Your task to perform on an android device: open the mobile data screen to see how much data has been used Image 0: 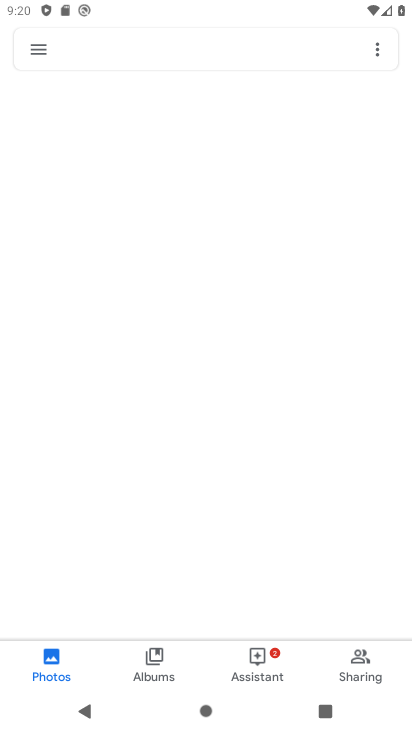
Step 0: click (58, 379)
Your task to perform on an android device: open the mobile data screen to see how much data has been used Image 1: 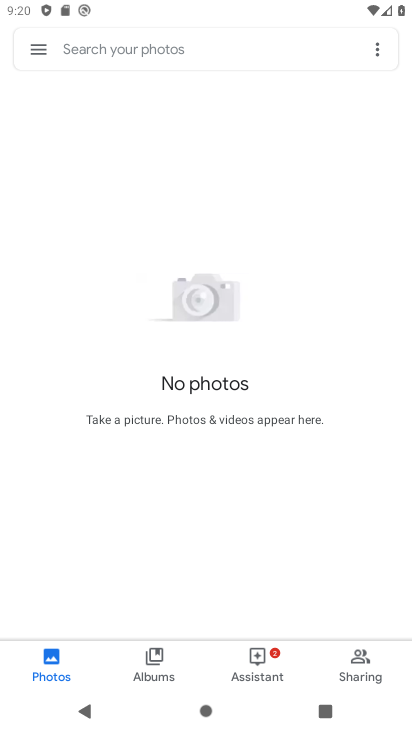
Step 1: press home button
Your task to perform on an android device: open the mobile data screen to see how much data has been used Image 2: 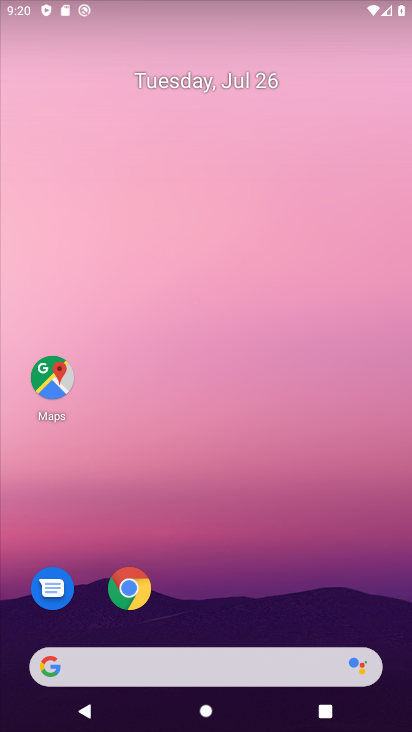
Step 2: drag from (160, 609) to (176, 244)
Your task to perform on an android device: open the mobile data screen to see how much data has been used Image 3: 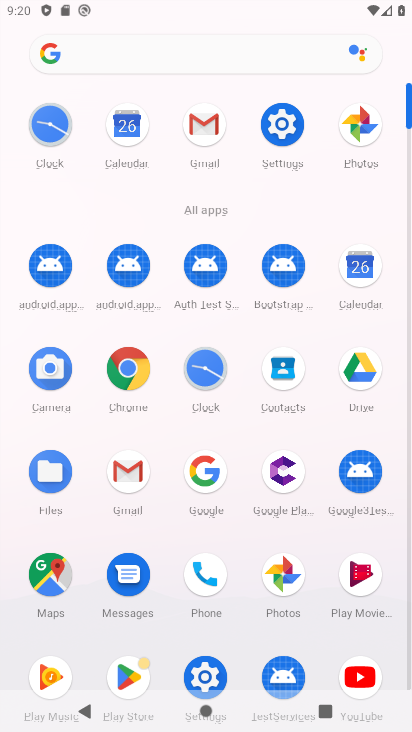
Step 3: click (287, 121)
Your task to perform on an android device: open the mobile data screen to see how much data has been used Image 4: 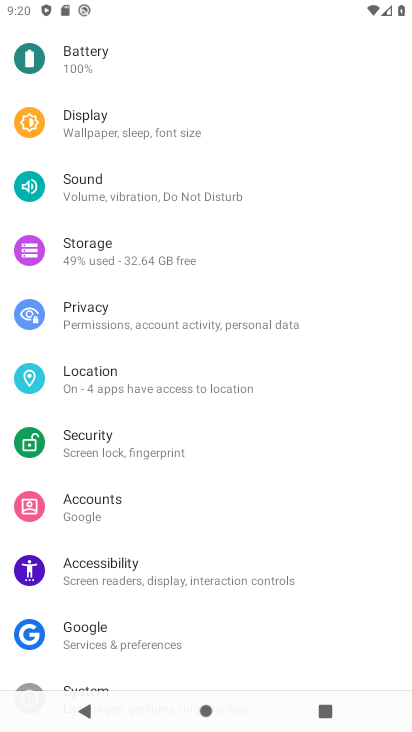
Step 4: drag from (88, 76) to (151, 459)
Your task to perform on an android device: open the mobile data screen to see how much data has been used Image 5: 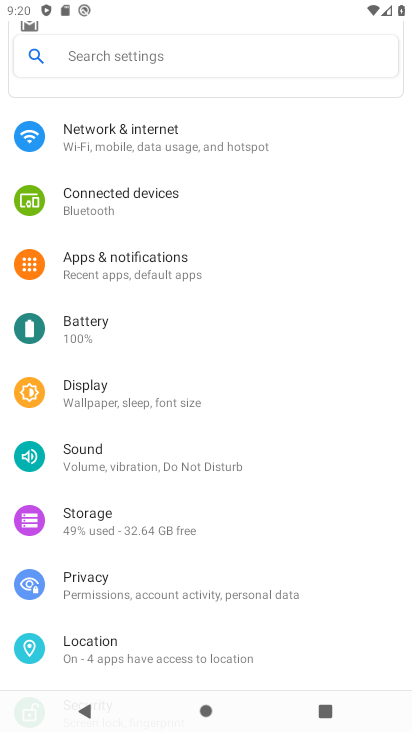
Step 5: click (113, 137)
Your task to perform on an android device: open the mobile data screen to see how much data has been used Image 6: 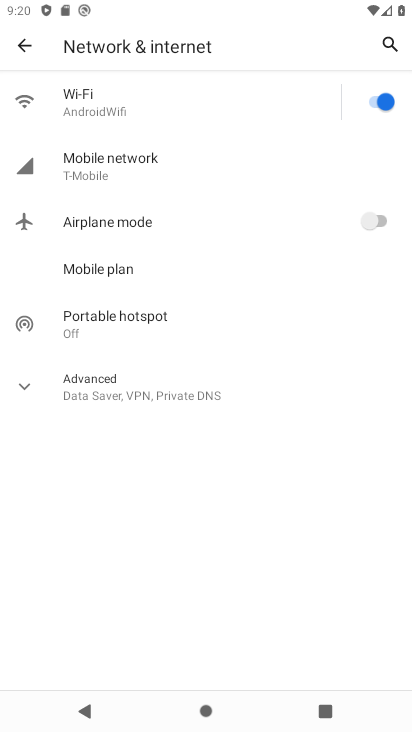
Step 6: click (108, 167)
Your task to perform on an android device: open the mobile data screen to see how much data has been used Image 7: 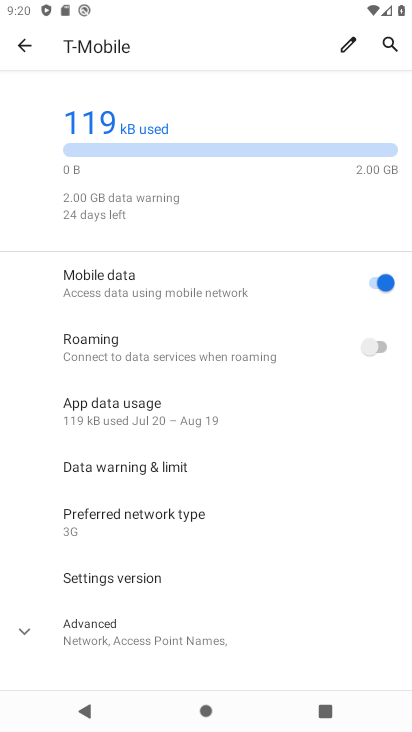
Step 7: task complete